Your task to perform on an android device: turn on airplane mode Image 0: 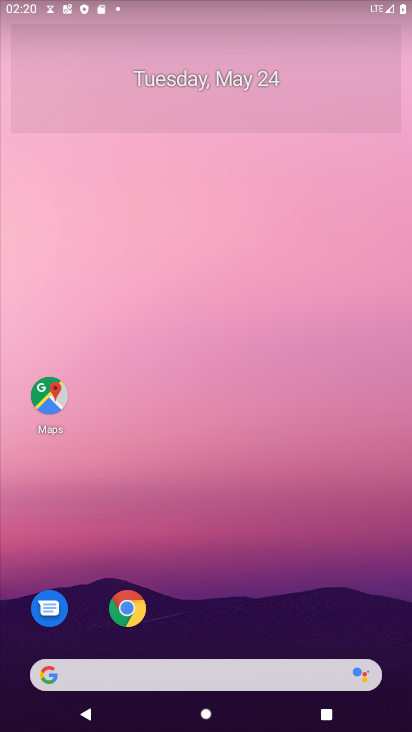
Step 0: drag from (233, 637) to (118, 104)
Your task to perform on an android device: turn on airplane mode Image 1: 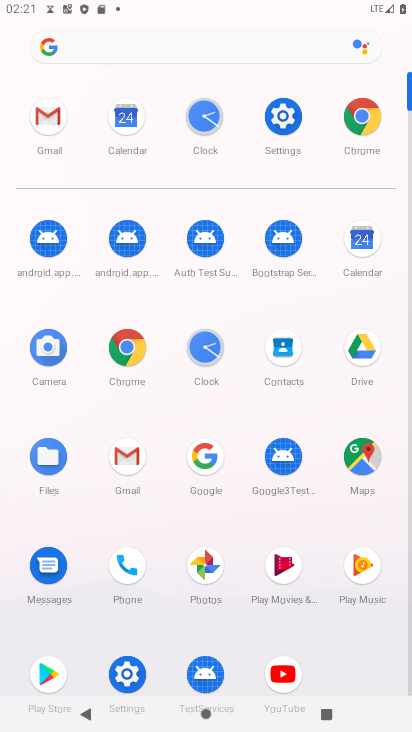
Step 1: click (272, 121)
Your task to perform on an android device: turn on airplane mode Image 2: 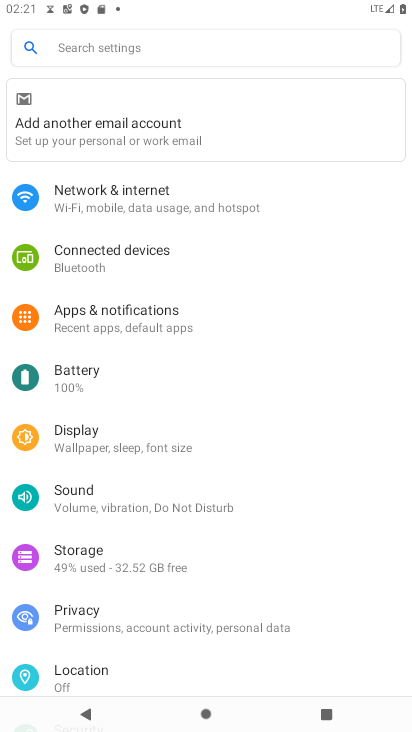
Step 2: click (221, 204)
Your task to perform on an android device: turn on airplane mode Image 3: 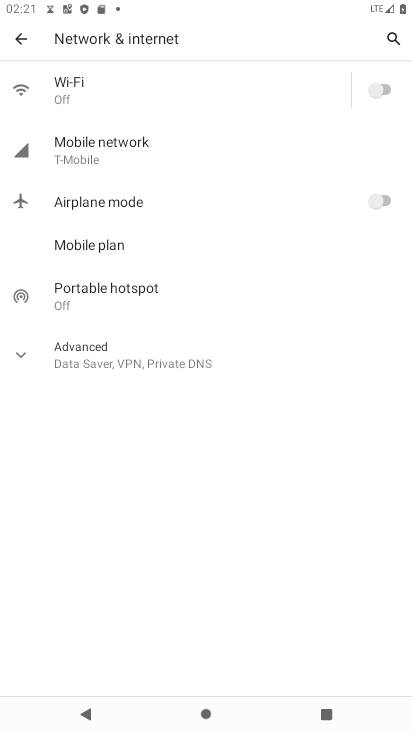
Step 3: click (371, 203)
Your task to perform on an android device: turn on airplane mode Image 4: 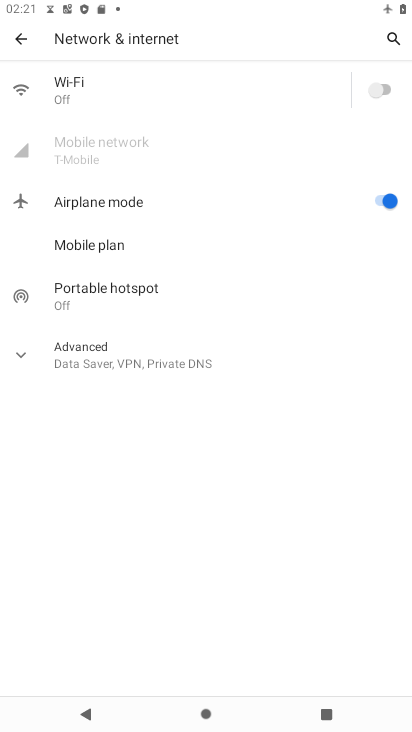
Step 4: task complete